Your task to perform on an android device: allow notifications from all sites in the chrome app Image 0: 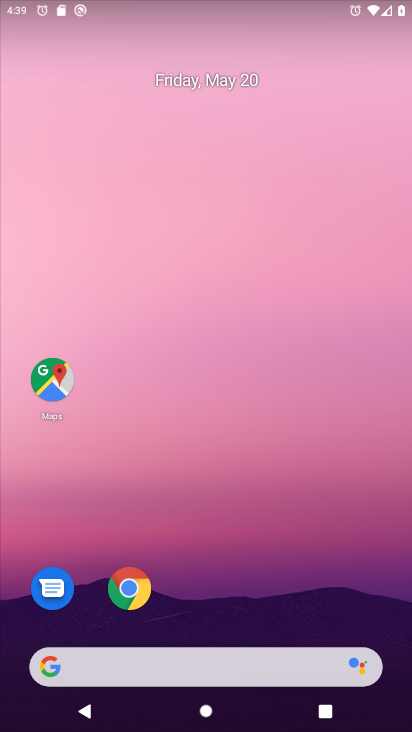
Step 0: drag from (259, 570) to (278, 121)
Your task to perform on an android device: allow notifications from all sites in the chrome app Image 1: 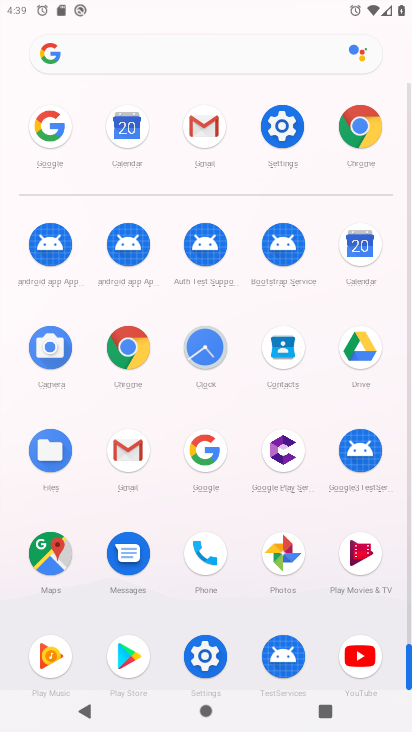
Step 1: click (281, 133)
Your task to perform on an android device: allow notifications from all sites in the chrome app Image 2: 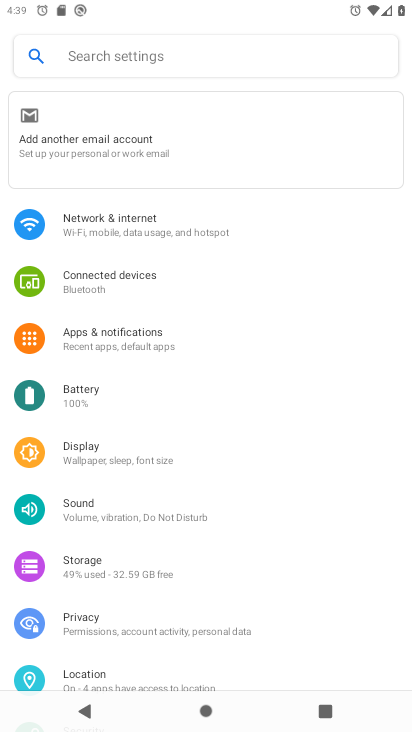
Step 2: press home button
Your task to perform on an android device: allow notifications from all sites in the chrome app Image 3: 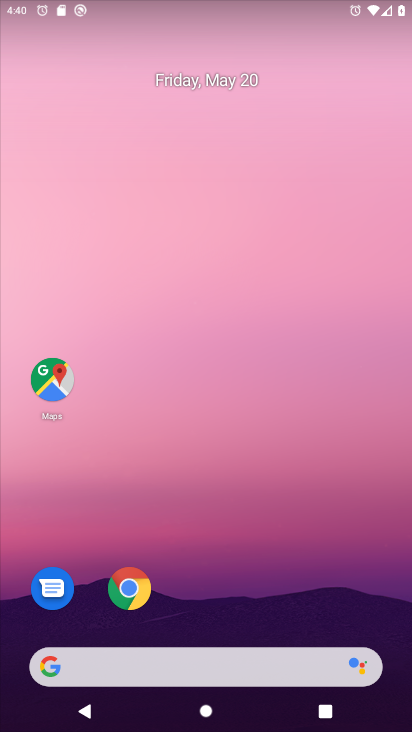
Step 3: drag from (214, 593) to (229, 88)
Your task to perform on an android device: allow notifications from all sites in the chrome app Image 4: 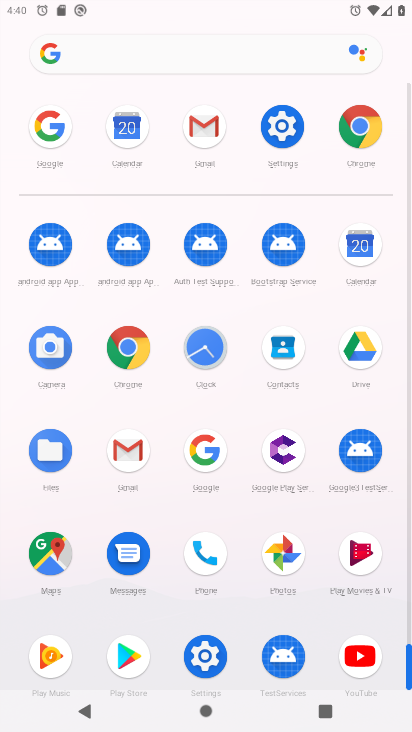
Step 4: click (219, 650)
Your task to perform on an android device: allow notifications from all sites in the chrome app Image 5: 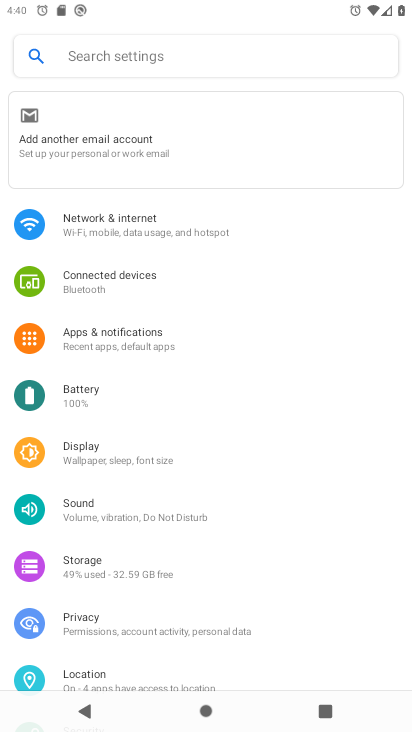
Step 5: press home button
Your task to perform on an android device: allow notifications from all sites in the chrome app Image 6: 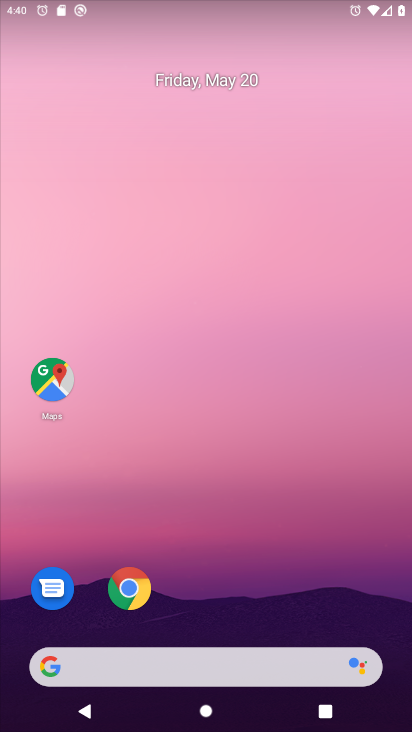
Step 6: drag from (197, 598) to (364, 226)
Your task to perform on an android device: allow notifications from all sites in the chrome app Image 7: 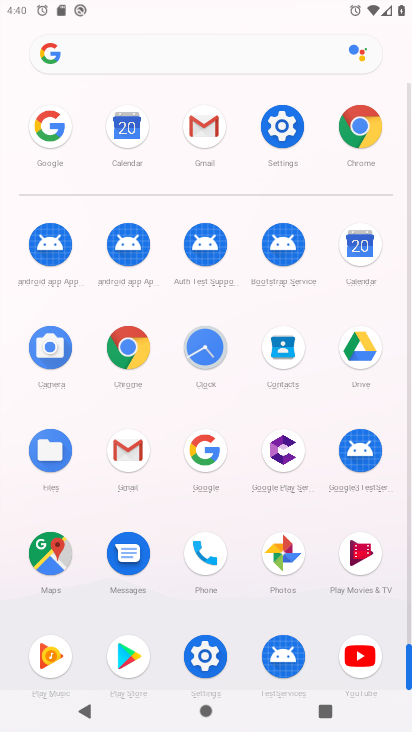
Step 7: click (126, 346)
Your task to perform on an android device: allow notifications from all sites in the chrome app Image 8: 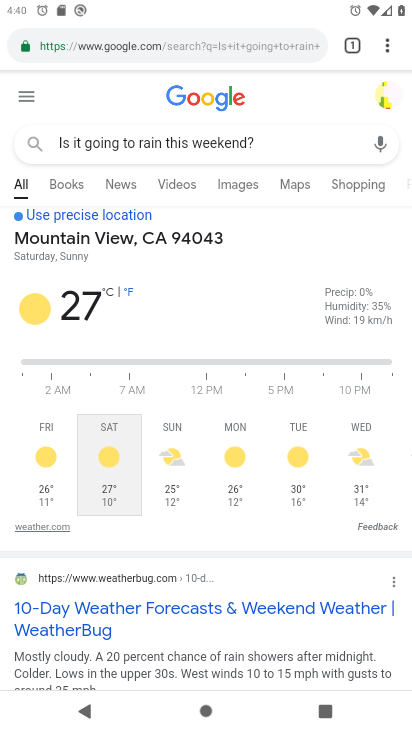
Step 8: drag from (384, 39) to (196, 517)
Your task to perform on an android device: allow notifications from all sites in the chrome app Image 9: 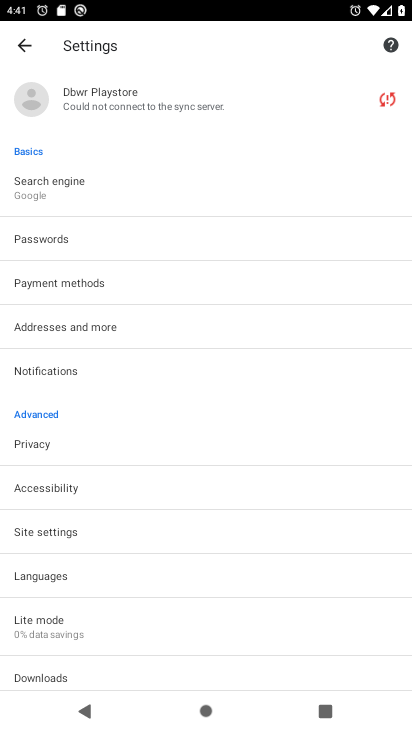
Step 9: click (50, 530)
Your task to perform on an android device: allow notifications from all sites in the chrome app Image 10: 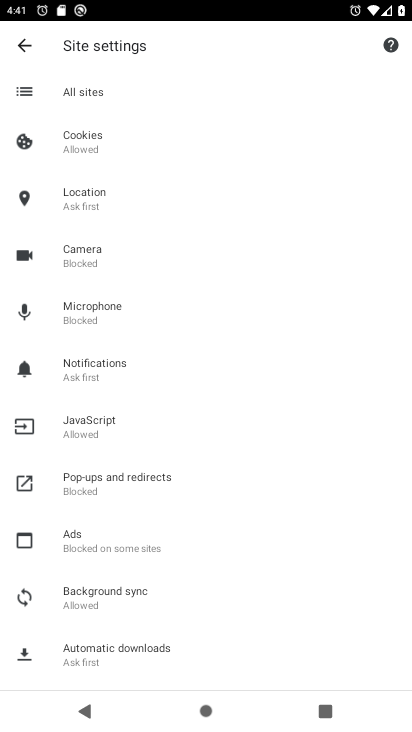
Step 10: click (88, 96)
Your task to perform on an android device: allow notifications from all sites in the chrome app Image 11: 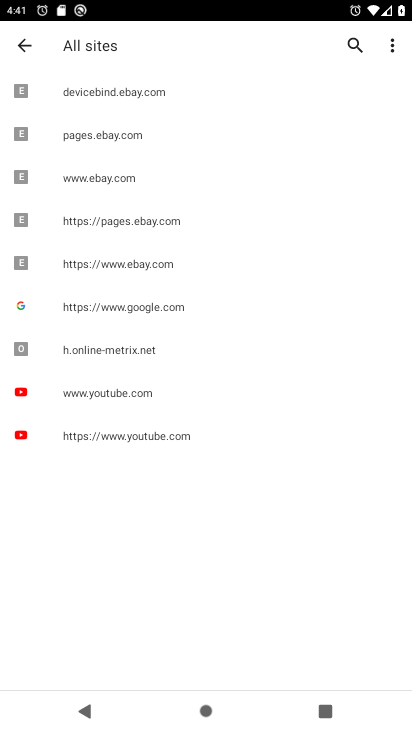
Step 11: click (114, 306)
Your task to perform on an android device: allow notifications from all sites in the chrome app Image 12: 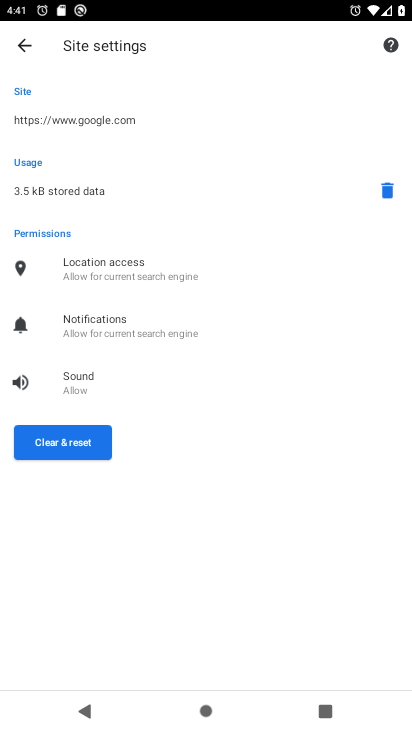
Step 12: click (132, 323)
Your task to perform on an android device: allow notifications from all sites in the chrome app Image 13: 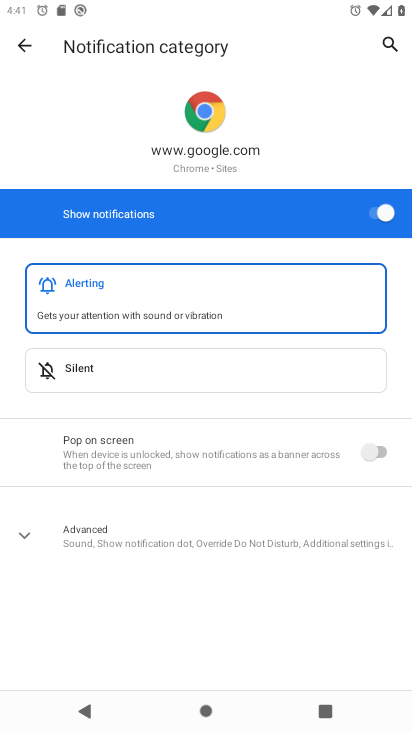
Step 13: task complete